Your task to perform on an android device: empty trash in the gmail app Image 0: 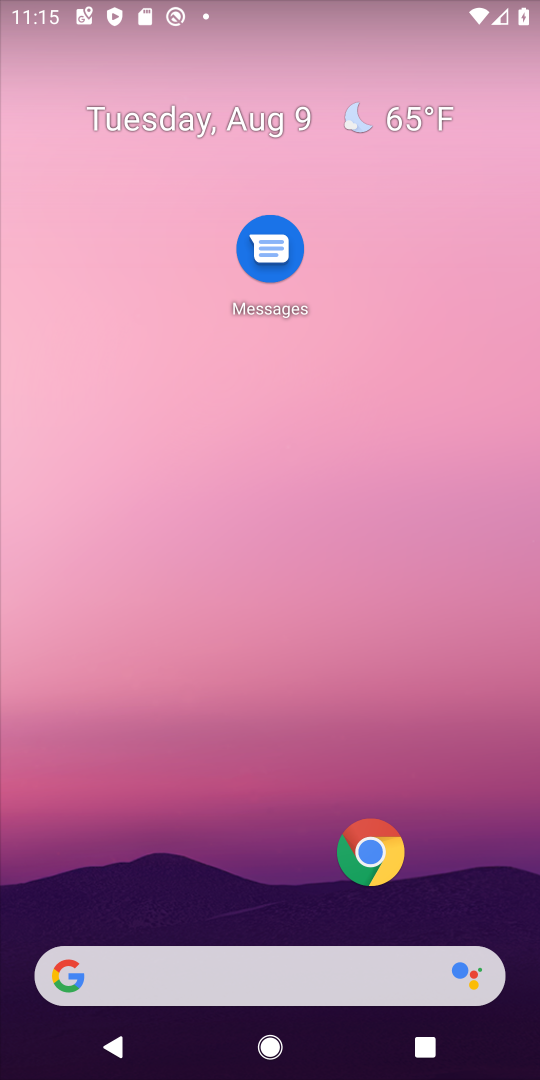
Step 0: drag from (240, 893) to (333, 228)
Your task to perform on an android device: empty trash in the gmail app Image 1: 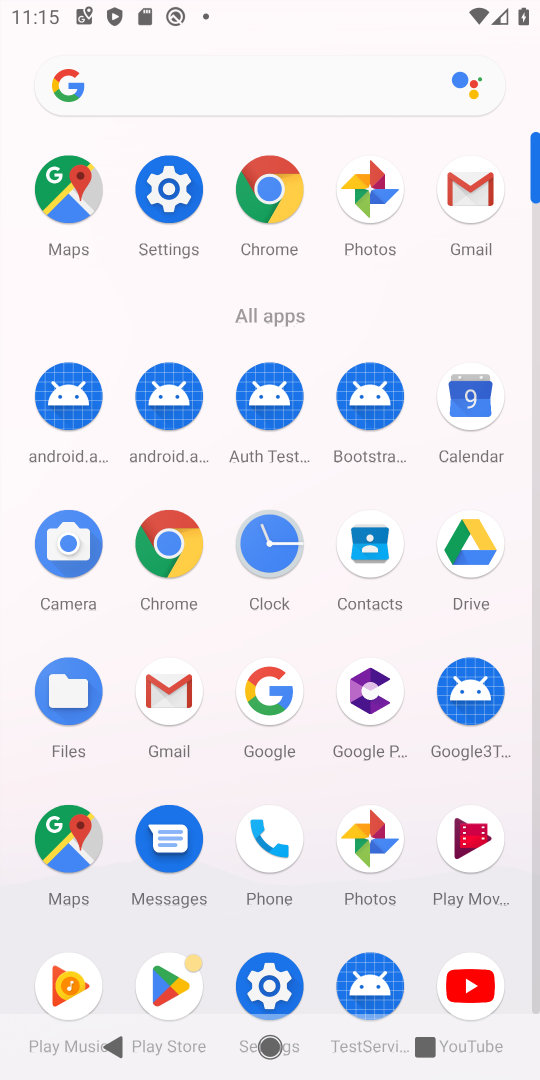
Step 1: click (459, 206)
Your task to perform on an android device: empty trash in the gmail app Image 2: 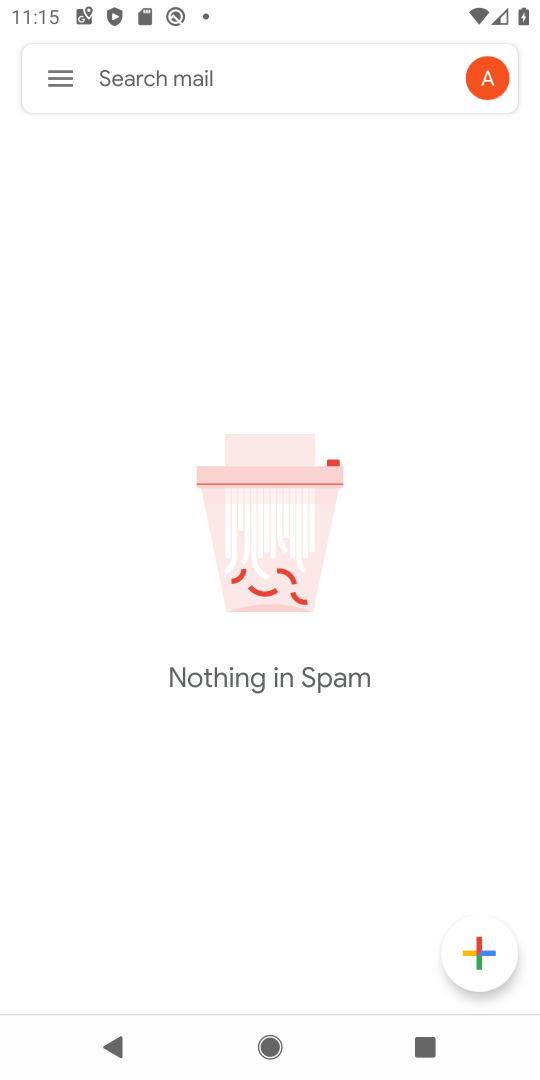
Step 2: click (65, 80)
Your task to perform on an android device: empty trash in the gmail app Image 3: 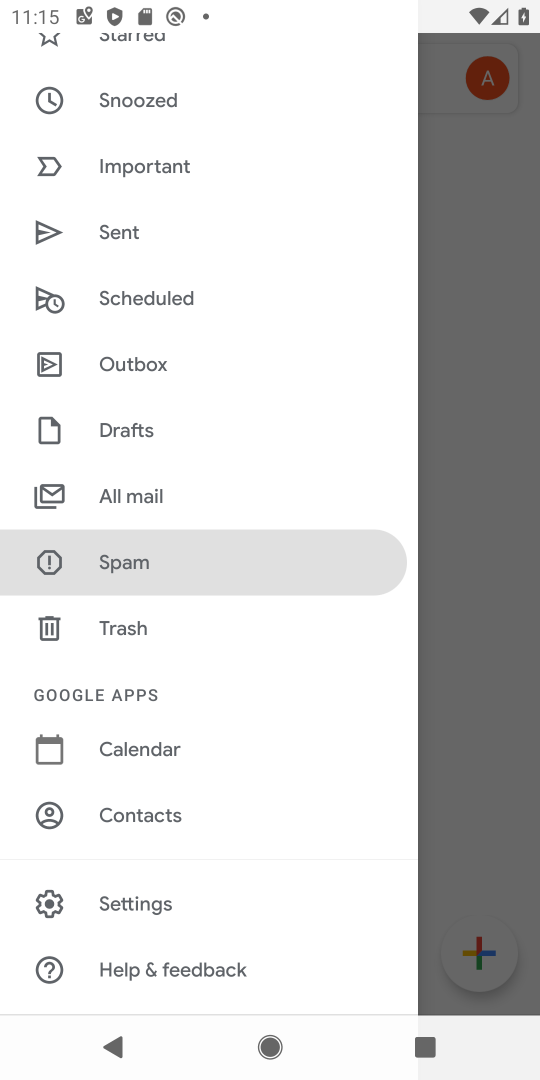
Step 3: click (150, 651)
Your task to perform on an android device: empty trash in the gmail app Image 4: 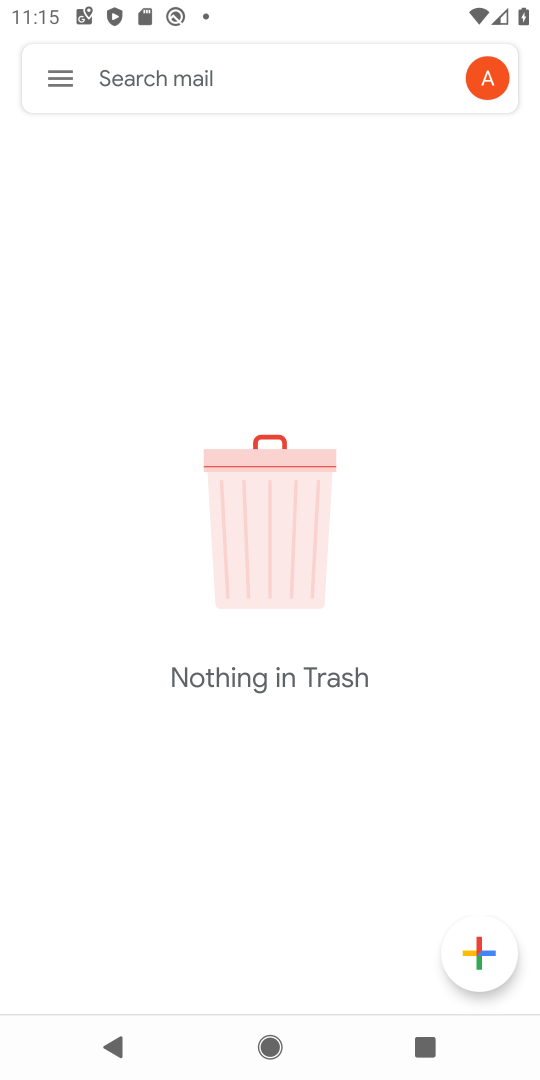
Step 4: task complete